Your task to perform on an android device: turn on translation in the chrome app Image 0: 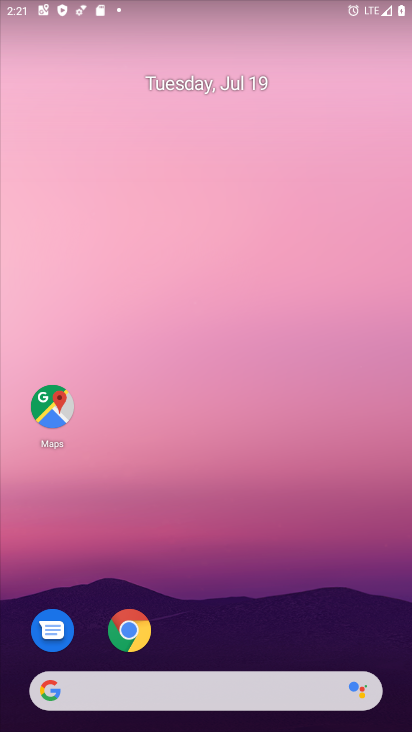
Step 0: press home button
Your task to perform on an android device: turn on translation in the chrome app Image 1: 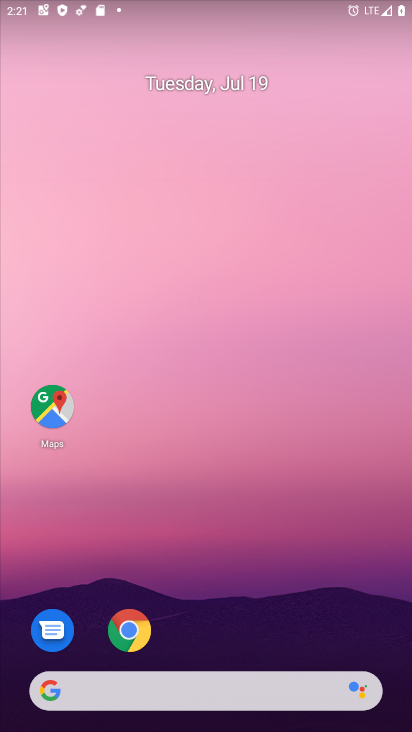
Step 1: click (128, 624)
Your task to perform on an android device: turn on translation in the chrome app Image 2: 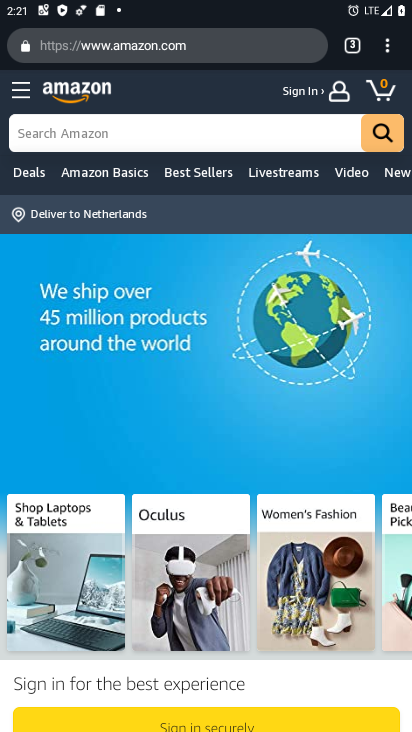
Step 2: click (387, 46)
Your task to perform on an android device: turn on translation in the chrome app Image 3: 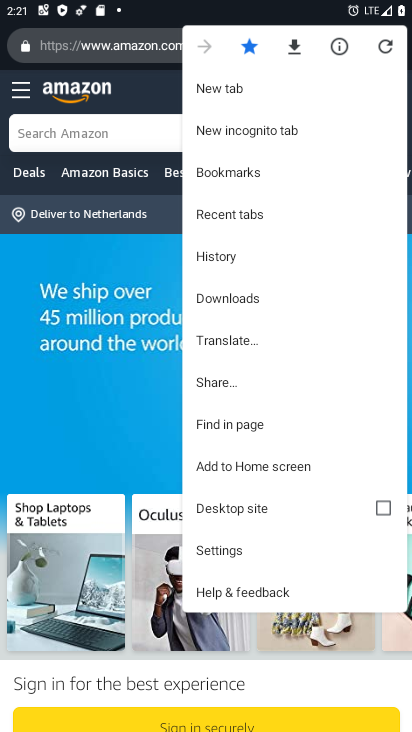
Step 3: click (251, 547)
Your task to perform on an android device: turn on translation in the chrome app Image 4: 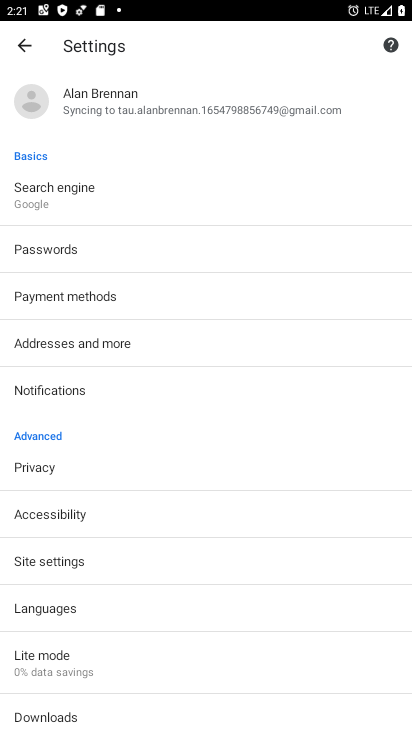
Step 4: click (90, 602)
Your task to perform on an android device: turn on translation in the chrome app Image 5: 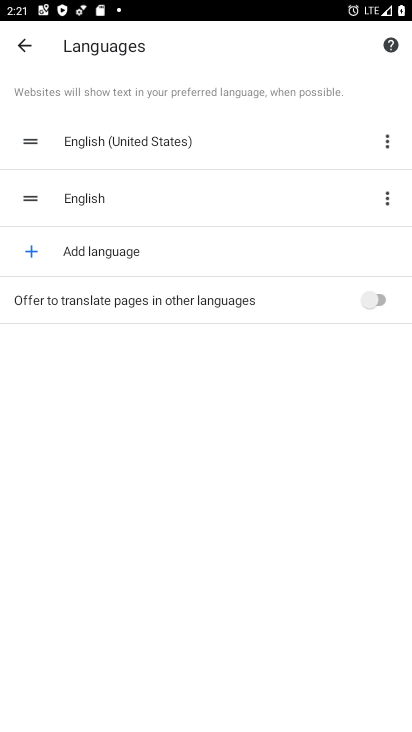
Step 5: click (378, 299)
Your task to perform on an android device: turn on translation in the chrome app Image 6: 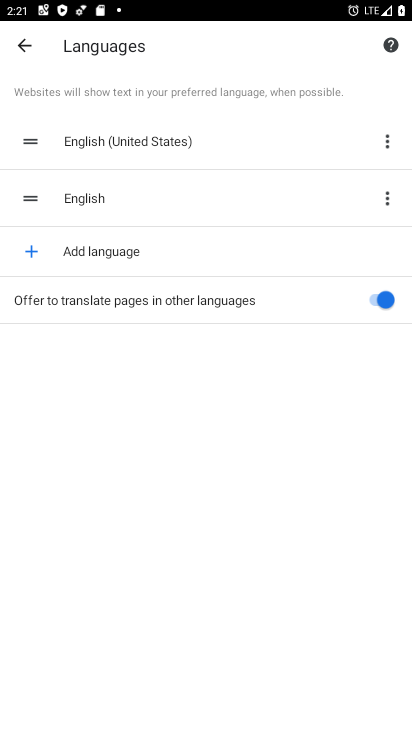
Step 6: task complete